Your task to perform on an android device: Open eBay Image 0: 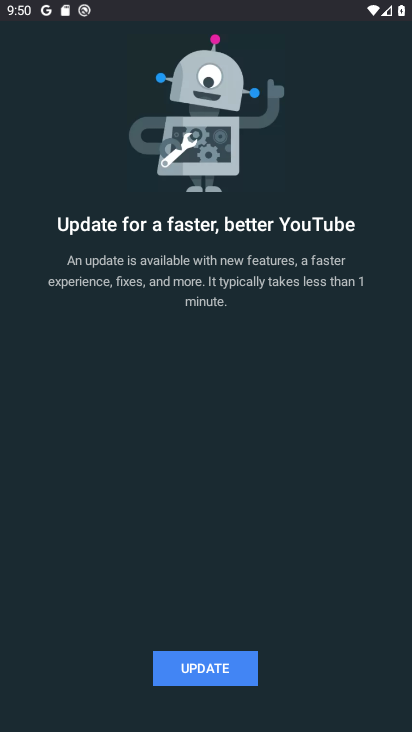
Step 0: press home button
Your task to perform on an android device: Open eBay Image 1: 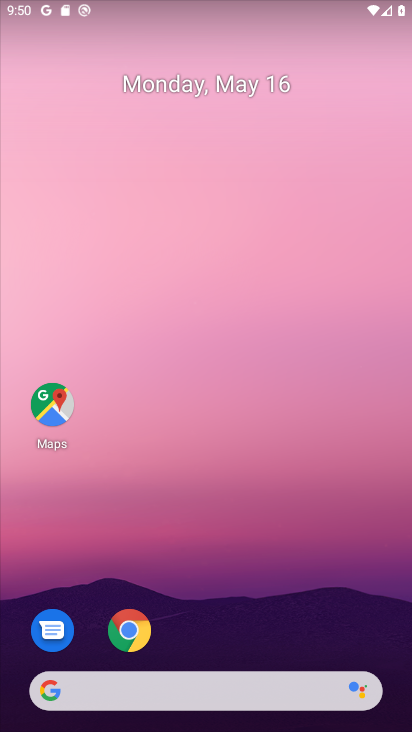
Step 1: click (146, 699)
Your task to perform on an android device: Open eBay Image 2: 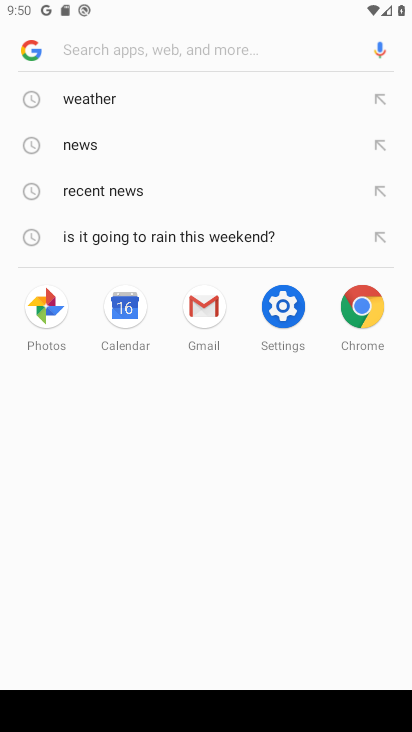
Step 2: type "ebay"
Your task to perform on an android device: Open eBay Image 3: 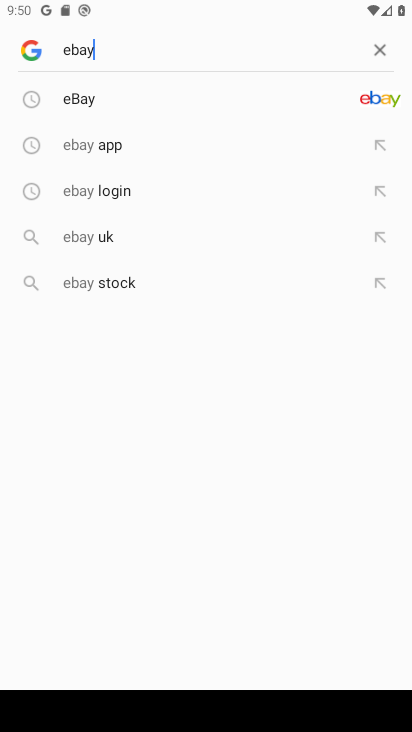
Step 3: click (88, 102)
Your task to perform on an android device: Open eBay Image 4: 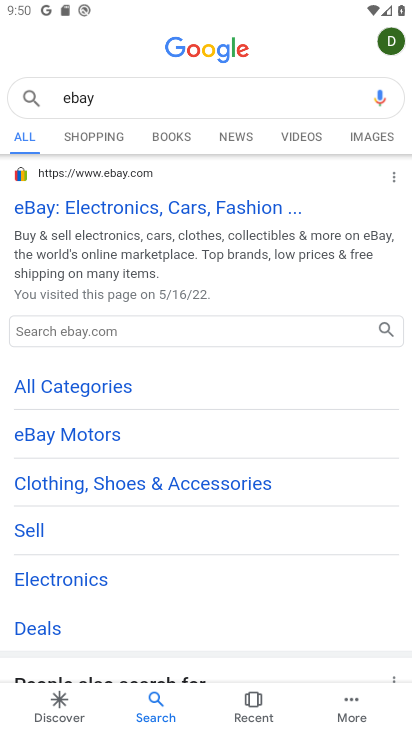
Step 4: click (43, 205)
Your task to perform on an android device: Open eBay Image 5: 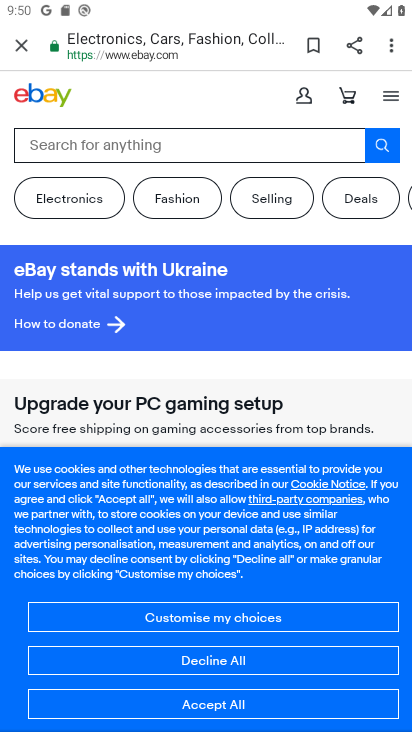
Step 5: task complete